Your task to perform on an android device: Open settings on Google Maps Image 0: 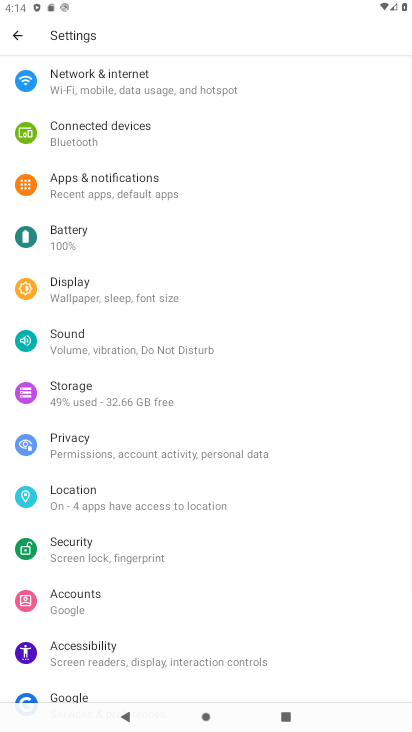
Step 0: press home button
Your task to perform on an android device: Open settings on Google Maps Image 1: 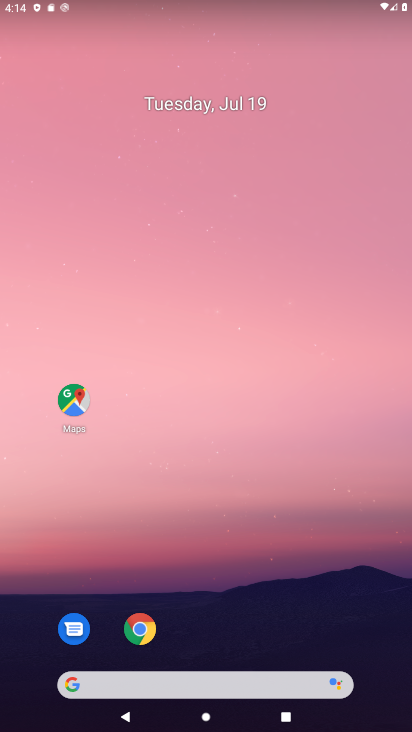
Step 1: click (80, 395)
Your task to perform on an android device: Open settings on Google Maps Image 2: 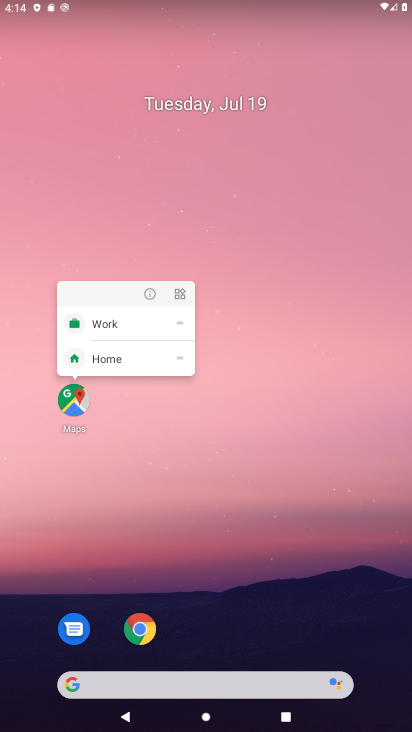
Step 2: click (78, 398)
Your task to perform on an android device: Open settings on Google Maps Image 3: 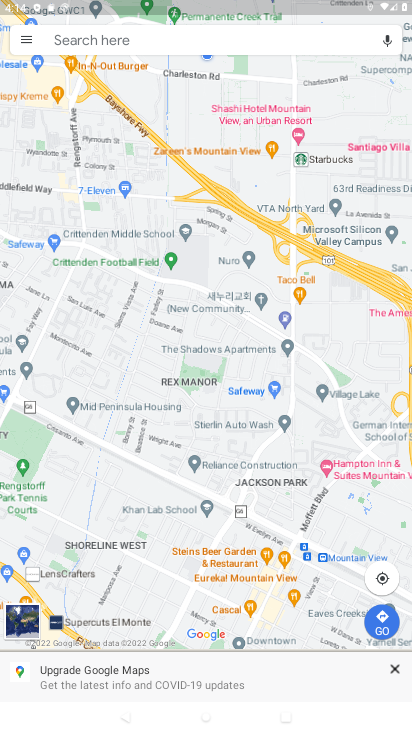
Step 3: click (27, 39)
Your task to perform on an android device: Open settings on Google Maps Image 4: 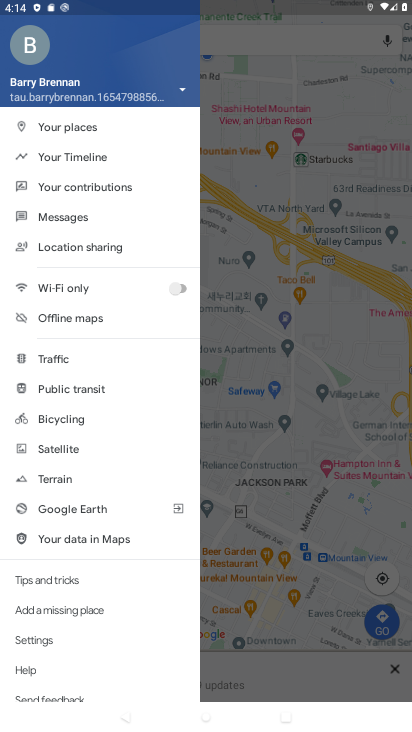
Step 4: click (36, 642)
Your task to perform on an android device: Open settings on Google Maps Image 5: 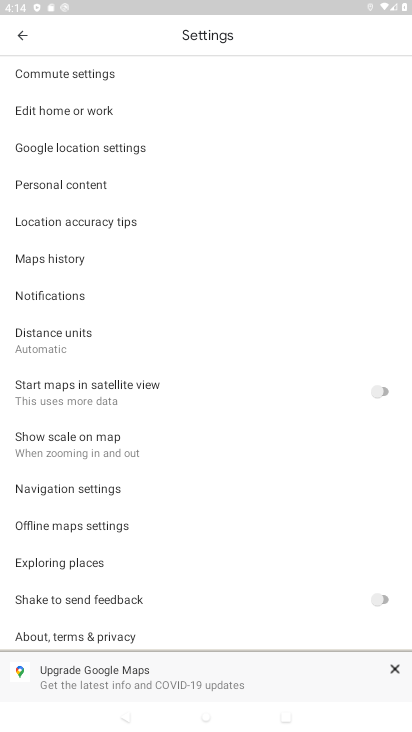
Step 5: task complete